Your task to perform on an android device: toggle data saver in the chrome app Image 0: 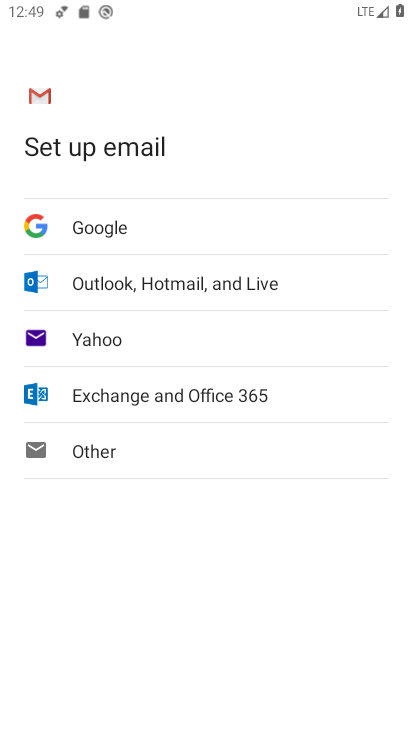
Step 0: press home button
Your task to perform on an android device: toggle data saver in the chrome app Image 1: 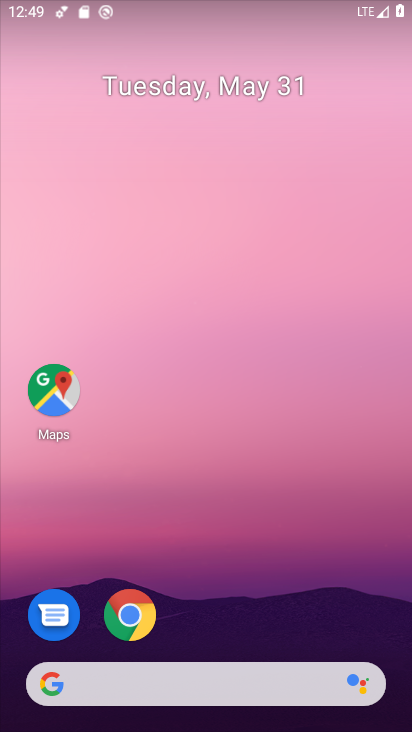
Step 1: click (131, 625)
Your task to perform on an android device: toggle data saver in the chrome app Image 2: 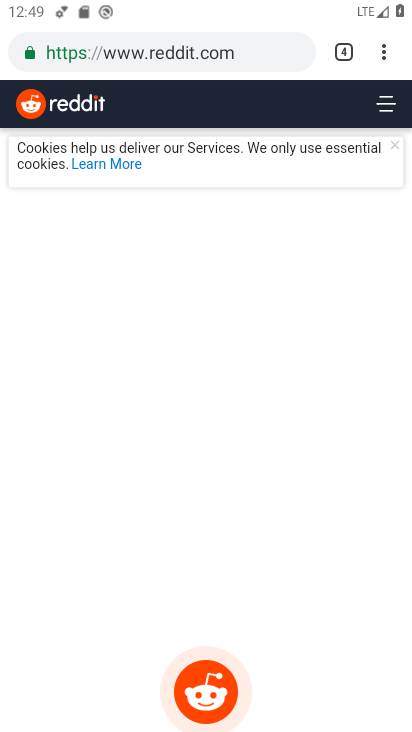
Step 2: click (385, 49)
Your task to perform on an android device: toggle data saver in the chrome app Image 3: 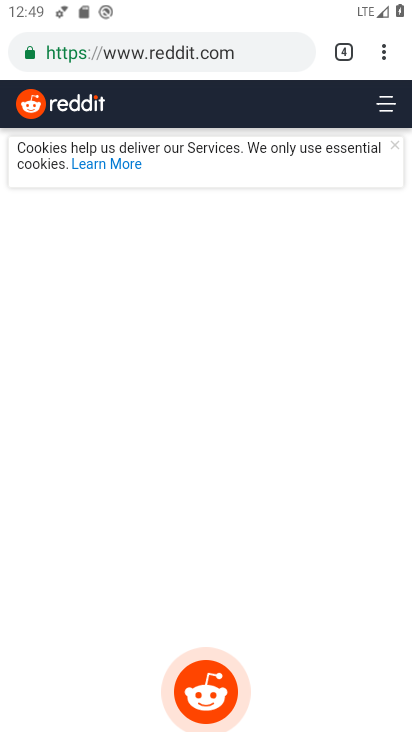
Step 3: click (379, 53)
Your task to perform on an android device: toggle data saver in the chrome app Image 4: 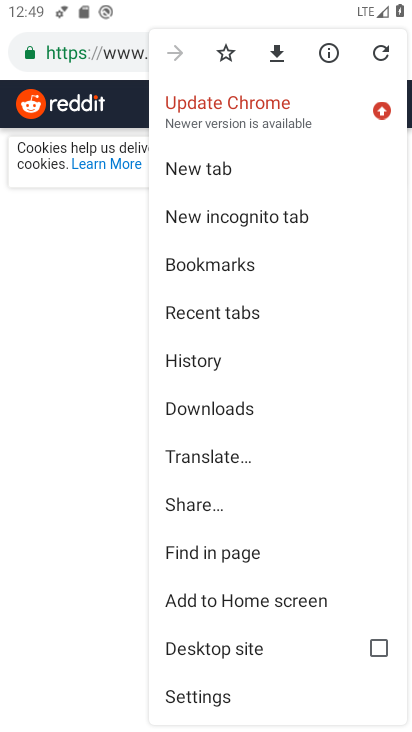
Step 4: click (206, 700)
Your task to perform on an android device: toggle data saver in the chrome app Image 5: 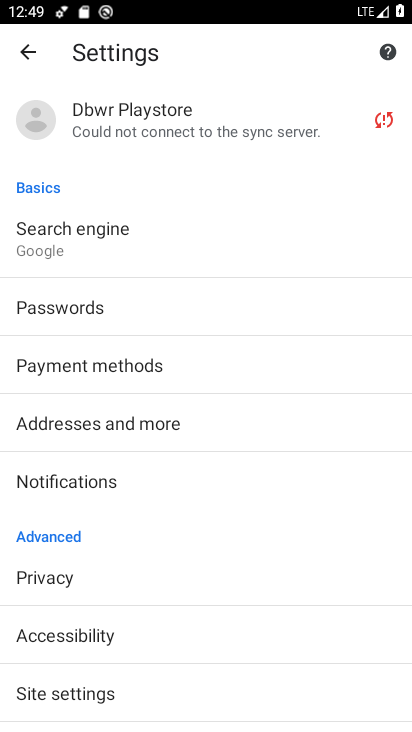
Step 5: drag from (99, 624) to (132, 441)
Your task to perform on an android device: toggle data saver in the chrome app Image 6: 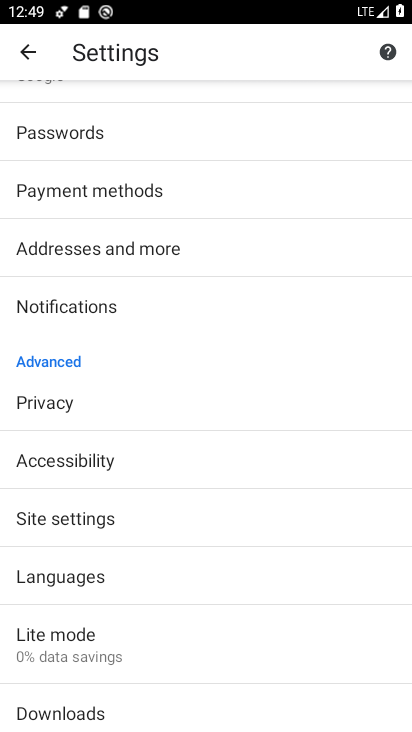
Step 6: click (67, 641)
Your task to perform on an android device: toggle data saver in the chrome app Image 7: 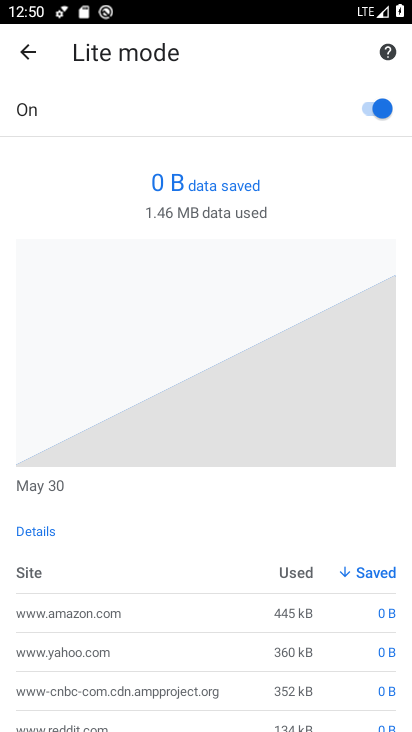
Step 7: click (342, 111)
Your task to perform on an android device: toggle data saver in the chrome app Image 8: 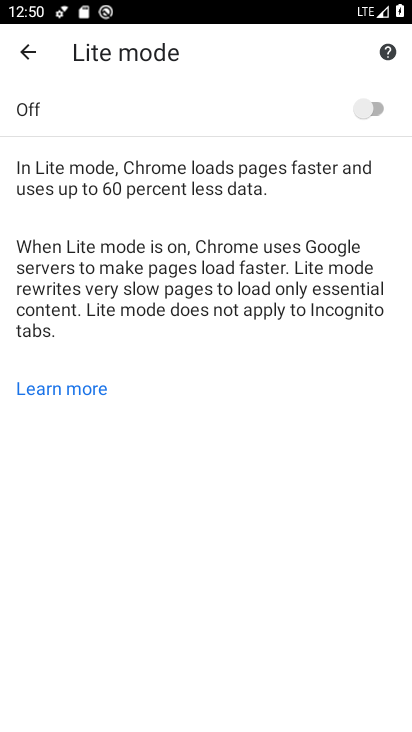
Step 8: task complete